Your task to perform on an android device: toggle pop-ups in chrome Image 0: 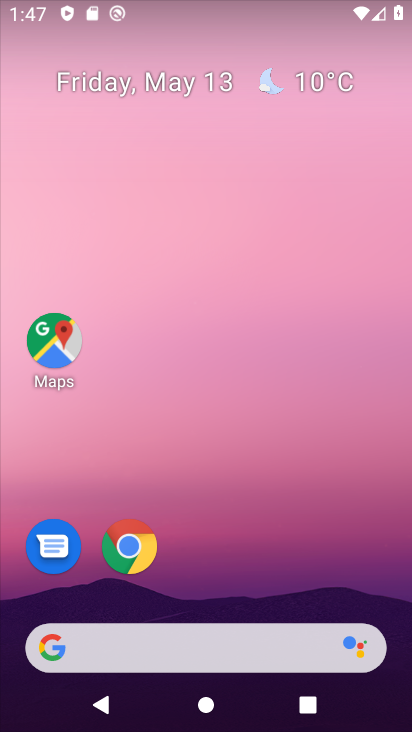
Step 0: click (116, 543)
Your task to perform on an android device: toggle pop-ups in chrome Image 1: 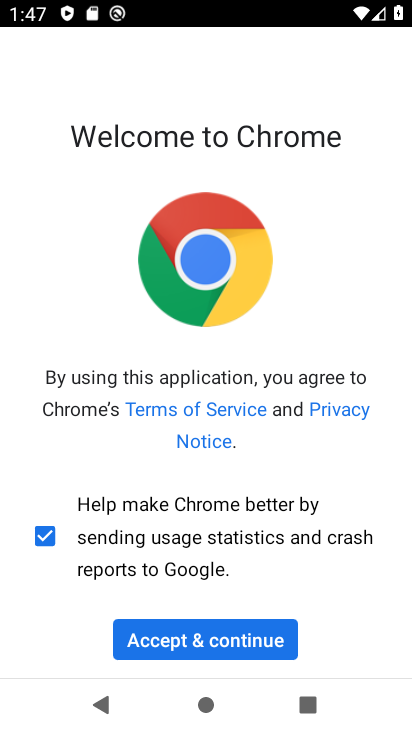
Step 1: click (269, 646)
Your task to perform on an android device: toggle pop-ups in chrome Image 2: 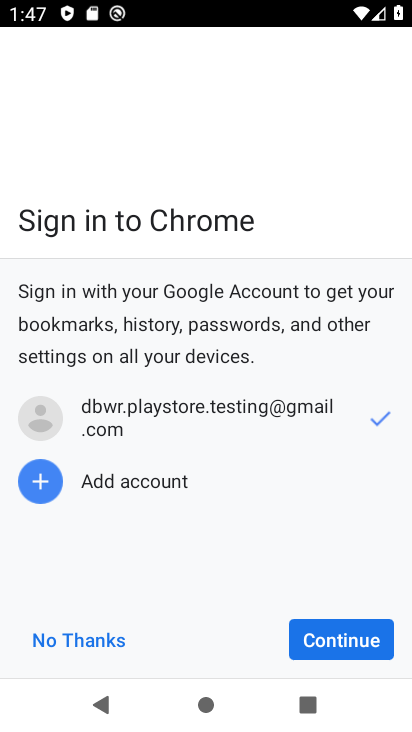
Step 2: click (340, 655)
Your task to perform on an android device: toggle pop-ups in chrome Image 3: 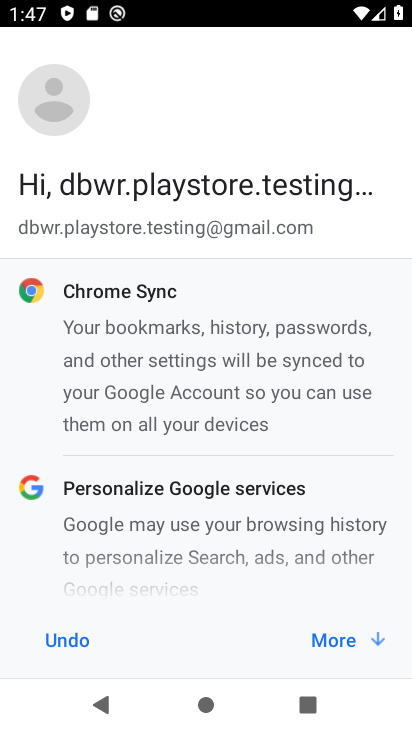
Step 3: click (348, 643)
Your task to perform on an android device: toggle pop-ups in chrome Image 4: 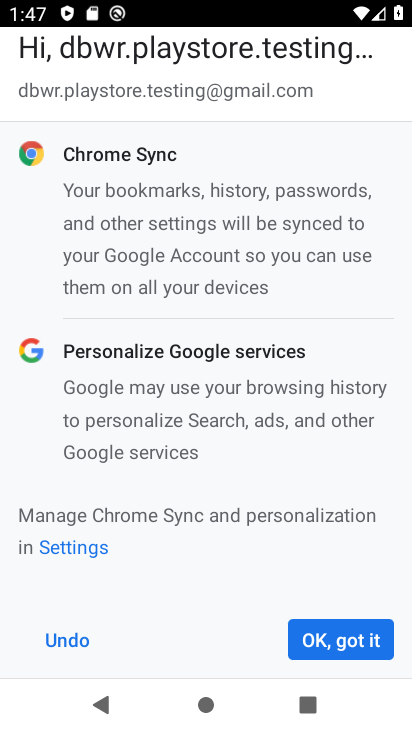
Step 4: click (348, 643)
Your task to perform on an android device: toggle pop-ups in chrome Image 5: 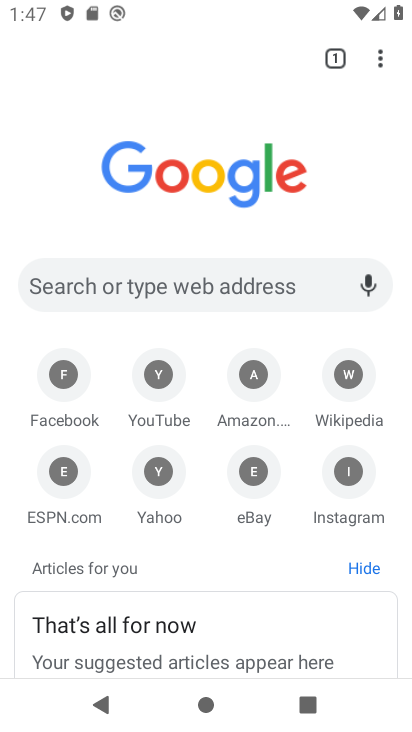
Step 5: click (389, 57)
Your task to perform on an android device: toggle pop-ups in chrome Image 6: 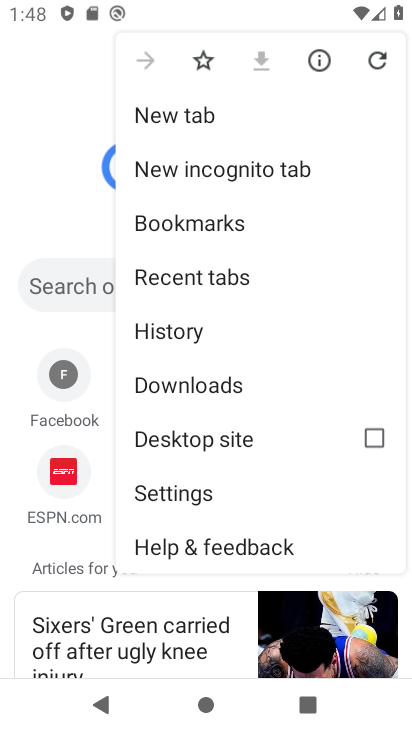
Step 6: click (199, 500)
Your task to perform on an android device: toggle pop-ups in chrome Image 7: 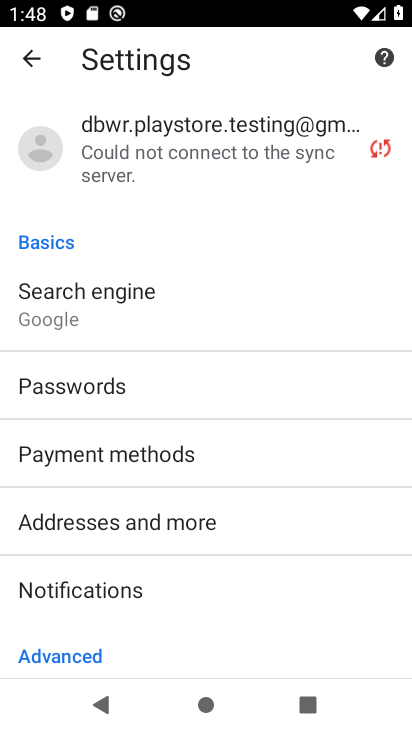
Step 7: drag from (216, 596) to (309, 263)
Your task to perform on an android device: toggle pop-ups in chrome Image 8: 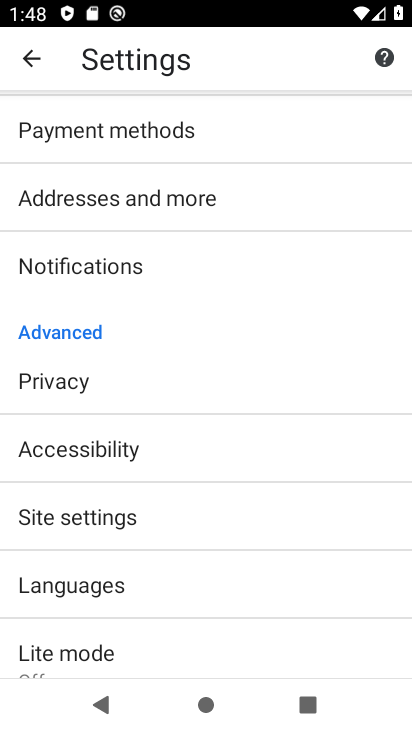
Step 8: click (184, 526)
Your task to perform on an android device: toggle pop-ups in chrome Image 9: 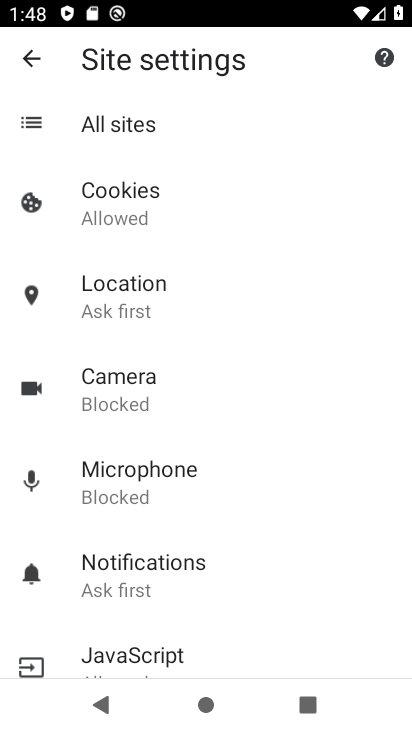
Step 9: drag from (161, 591) to (304, 163)
Your task to perform on an android device: toggle pop-ups in chrome Image 10: 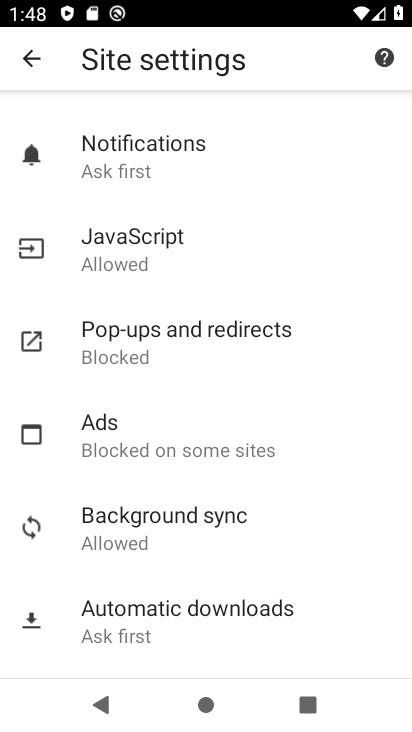
Step 10: click (223, 338)
Your task to perform on an android device: toggle pop-ups in chrome Image 11: 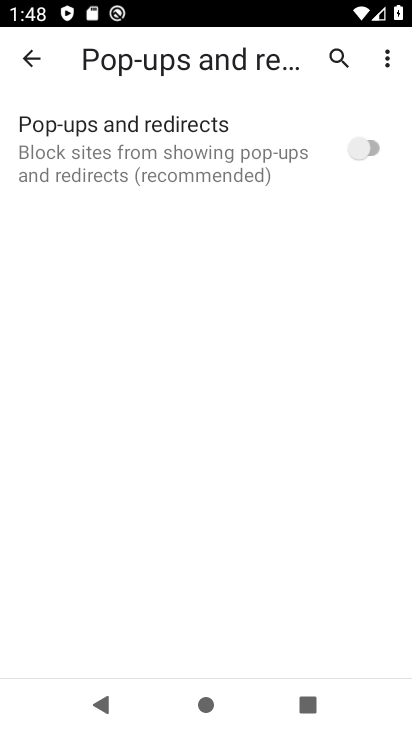
Step 11: click (376, 143)
Your task to perform on an android device: toggle pop-ups in chrome Image 12: 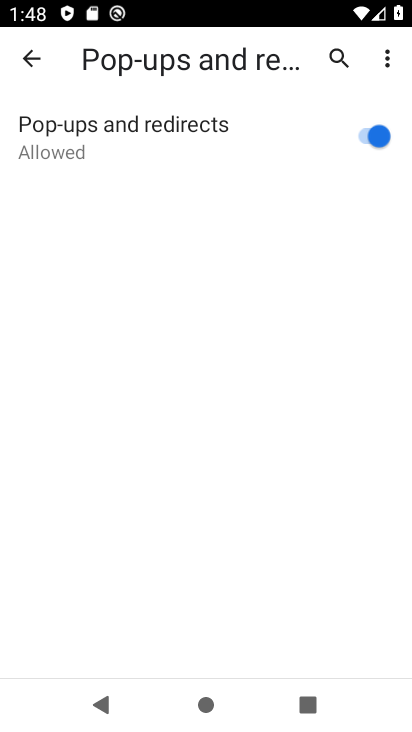
Step 12: task complete